Your task to perform on an android device: turn on priority inbox in the gmail app Image 0: 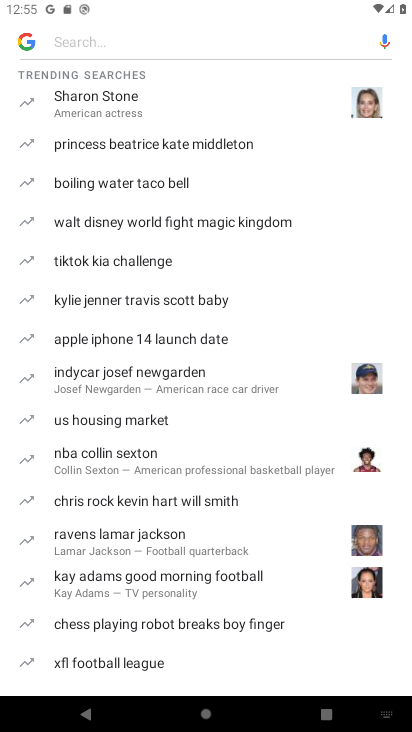
Step 0: press home button
Your task to perform on an android device: turn on priority inbox in the gmail app Image 1: 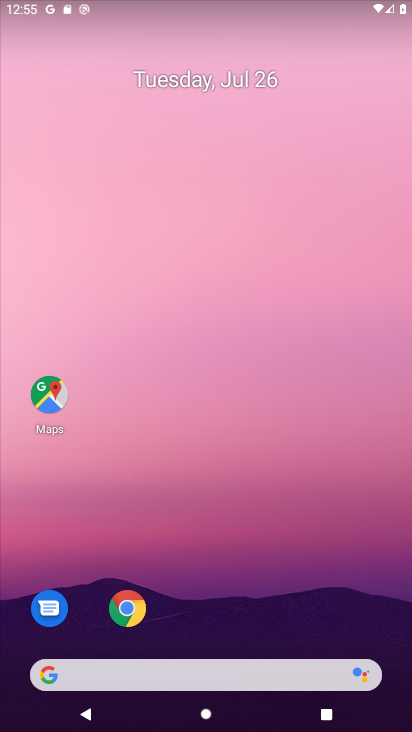
Step 1: drag from (185, 627) to (215, 63)
Your task to perform on an android device: turn on priority inbox in the gmail app Image 2: 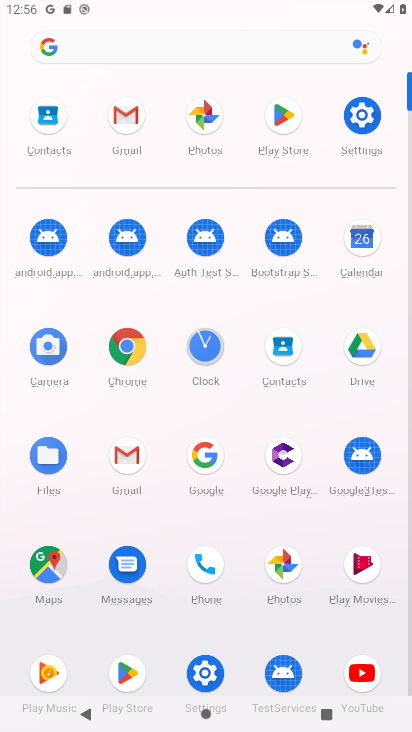
Step 2: click (127, 118)
Your task to perform on an android device: turn on priority inbox in the gmail app Image 3: 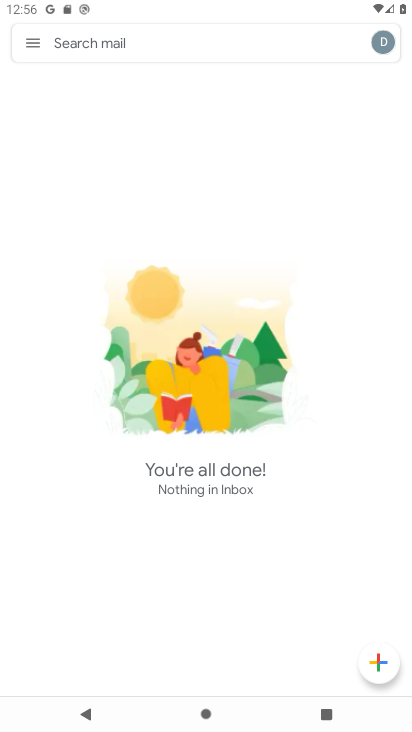
Step 3: click (33, 35)
Your task to perform on an android device: turn on priority inbox in the gmail app Image 4: 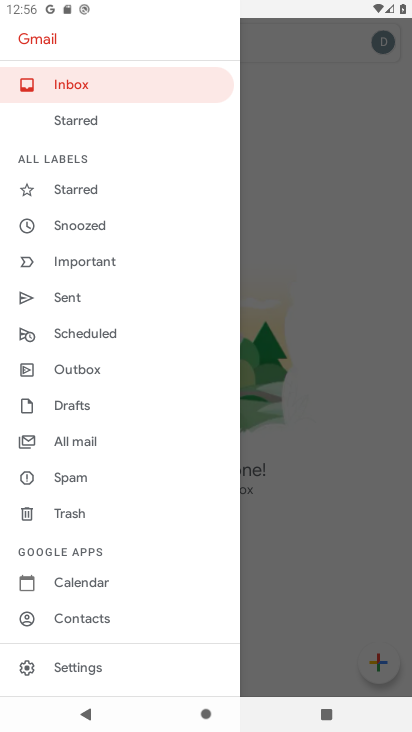
Step 4: click (113, 673)
Your task to perform on an android device: turn on priority inbox in the gmail app Image 5: 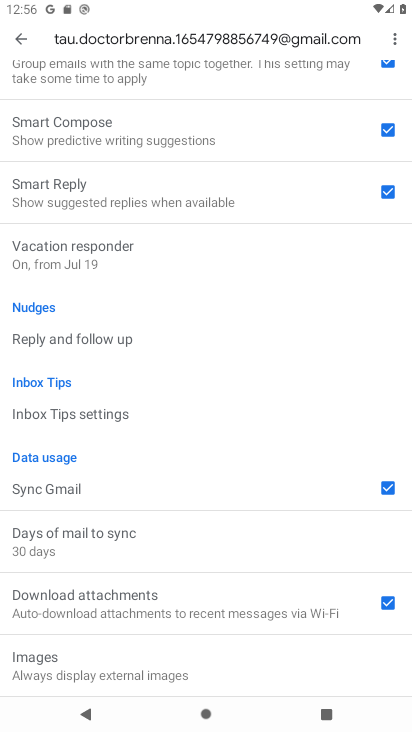
Step 5: drag from (244, 118) to (245, 557)
Your task to perform on an android device: turn on priority inbox in the gmail app Image 6: 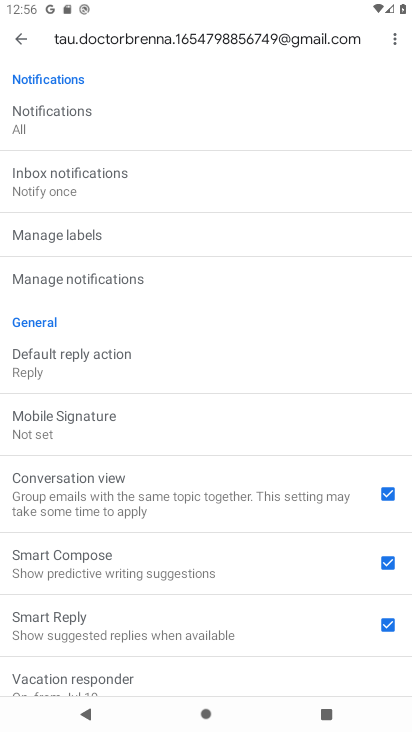
Step 6: drag from (98, 114) to (81, 671)
Your task to perform on an android device: turn on priority inbox in the gmail app Image 7: 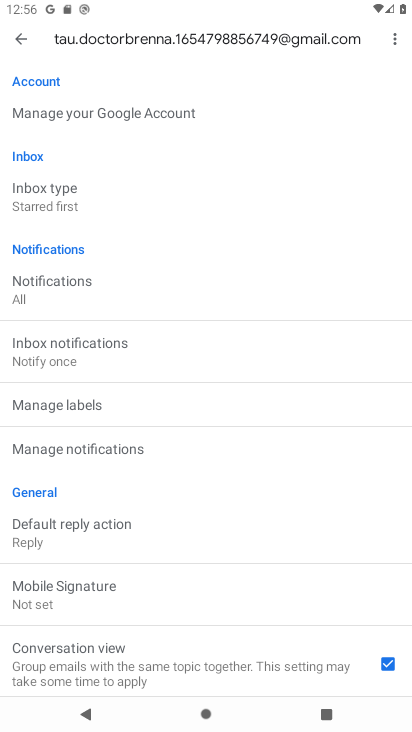
Step 7: drag from (124, 102) to (159, 717)
Your task to perform on an android device: turn on priority inbox in the gmail app Image 8: 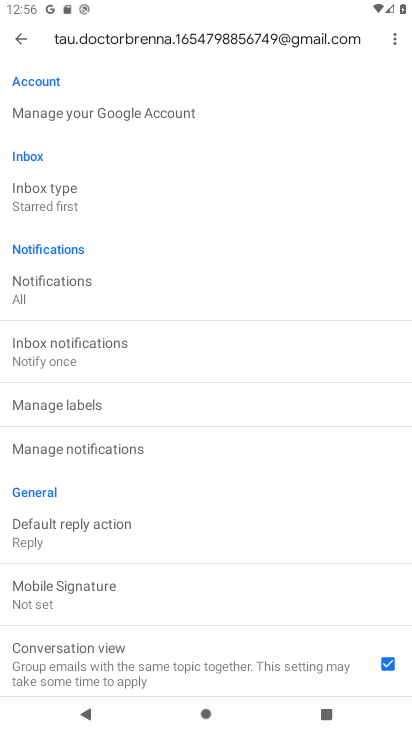
Step 8: click (81, 192)
Your task to perform on an android device: turn on priority inbox in the gmail app Image 9: 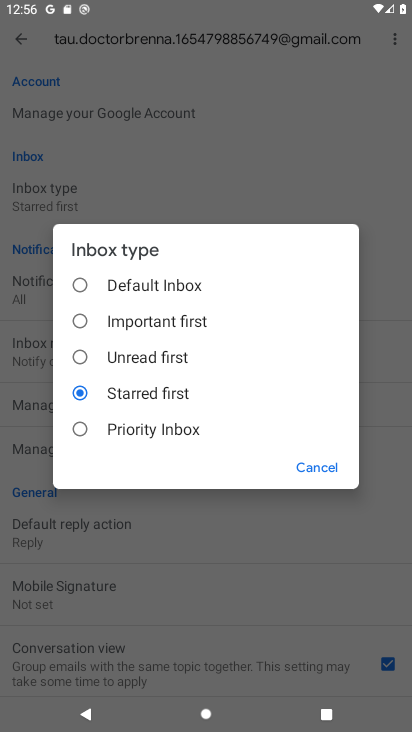
Step 9: click (135, 436)
Your task to perform on an android device: turn on priority inbox in the gmail app Image 10: 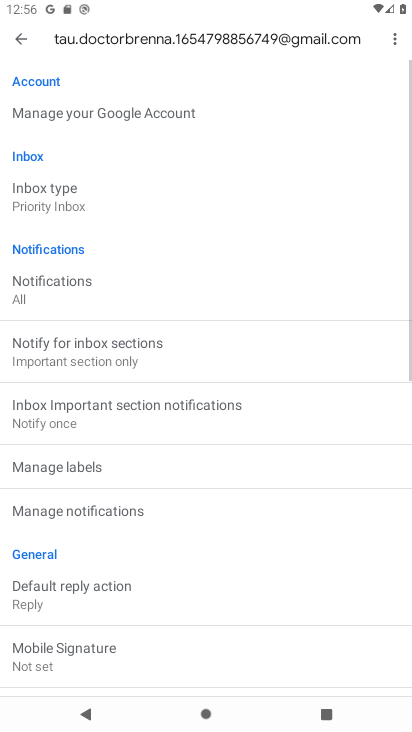
Step 10: task complete